Your task to perform on an android device: open app "Pluto TV - Live TV and Movies" (install if not already installed), go to login, and select forgot password Image 0: 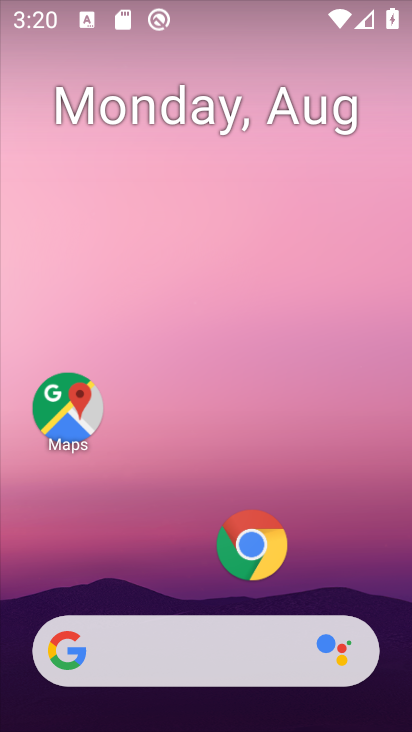
Step 0: drag from (173, 553) to (315, 1)
Your task to perform on an android device: open app "Pluto TV - Live TV and Movies" (install if not already installed), go to login, and select forgot password Image 1: 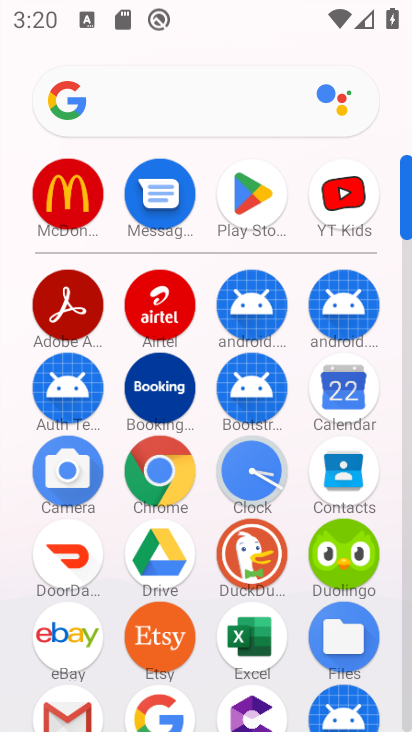
Step 1: click (239, 191)
Your task to perform on an android device: open app "Pluto TV - Live TV and Movies" (install if not already installed), go to login, and select forgot password Image 2: 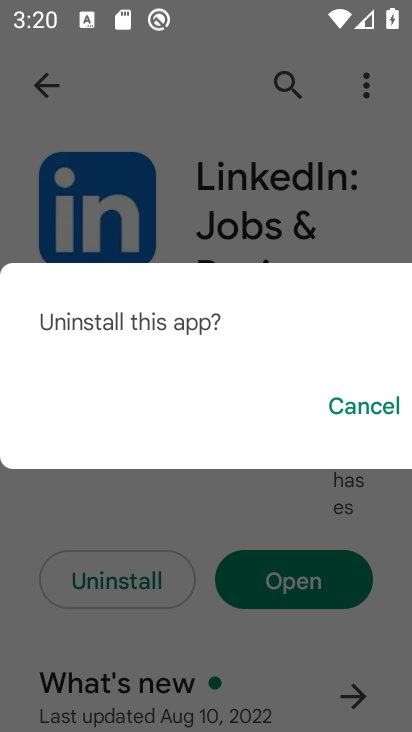
Step 2: click (301, 77)
Your task to perform on an android device: open app "Pluto TV - Live TV and Movies" (install if not already installed), go to login, and select forgot password Image 3: 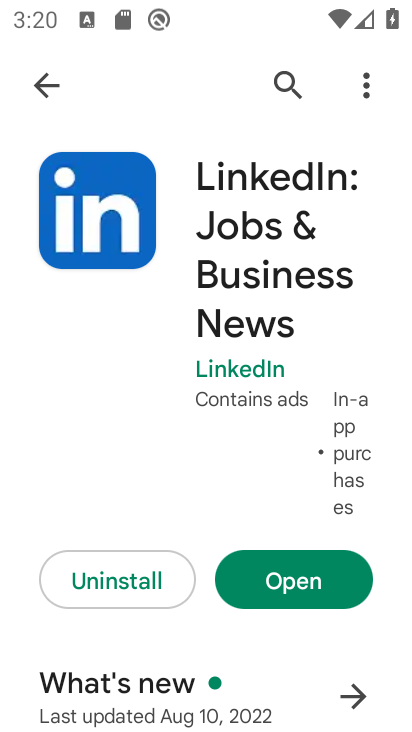
Step 3: click (365, 397)
Your task to perform on an android device: open app "Pluto TV - Live TV and Movies" (install if not already installed), go to login, and select forgot password Image 4: 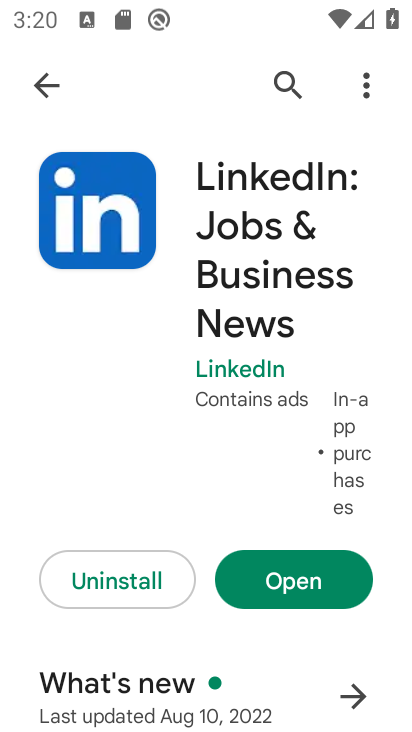
Step 4: click (276, 86)
Your task to perform on an android device: open app "Pluto TV - Live TV and Movies" (install if not already installed), go to login, and select forgot password Image 5: 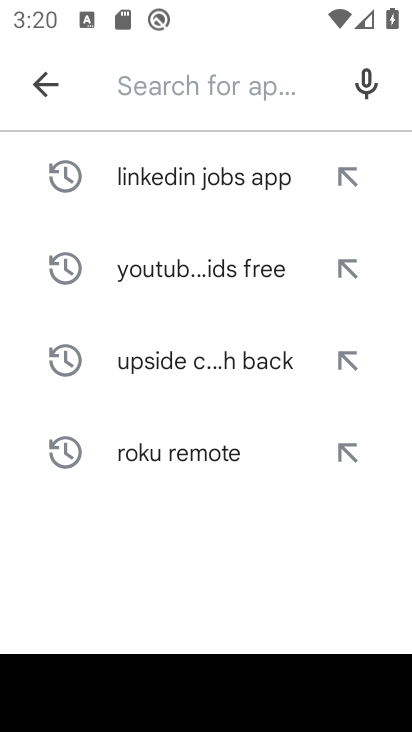
Step 5: type "plutotv"
Your task to perform on an android device: open app "Pluto TV - Live TV and Movies" (install if not already installed), go to login, and select forgot password Image 6: 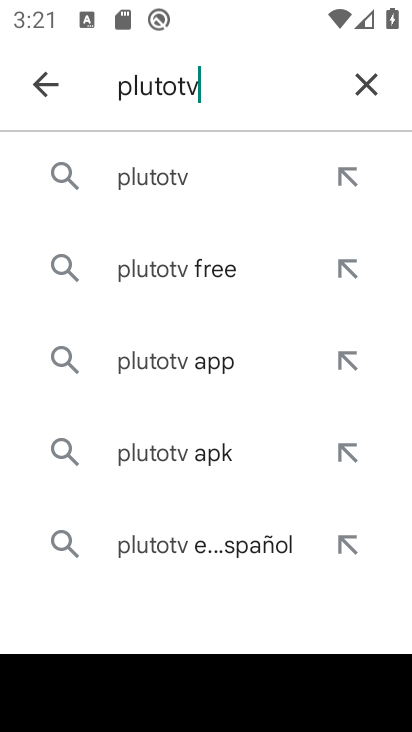
Step 6: click (170, 167)
Your task to perform on an android device: open app "Pluto TV - Live TV and Movies" (install if not already installed), go to login, and select forgot password Image 7: 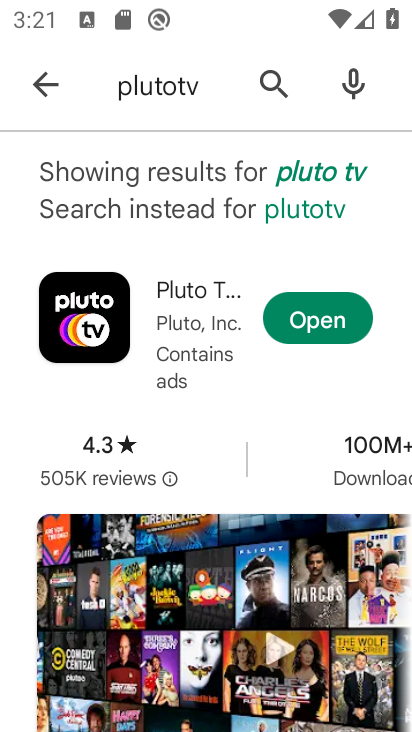
Step 7: click (299, 317)
Your task to perform on an android device: open app "Pluto TV - Live TV and Movies" (install if not already installed), go to login, and select forgot password Image 8: 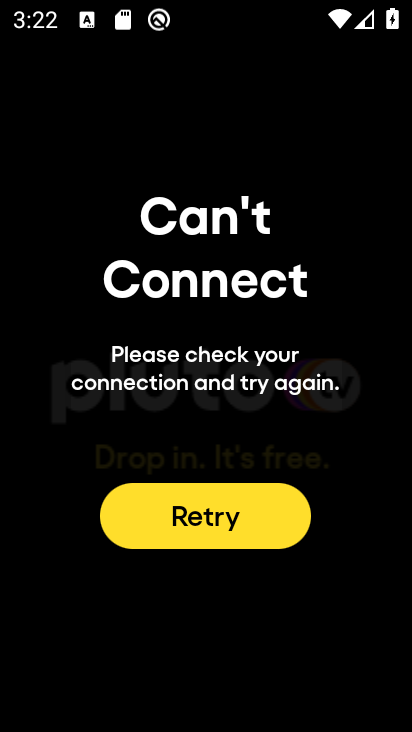
Step 8: task complete